Your task to perform on an android device: What's the weather going to be this weekend? Image 0: 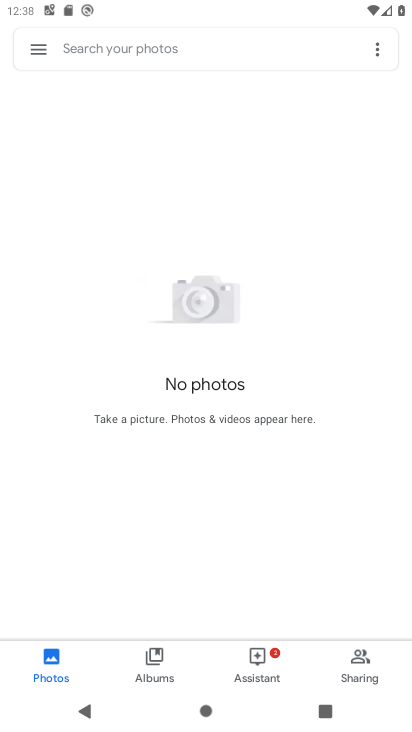
Step 0: press home button
Your task to perform on an android device: What's the weather going to be this weekend? Image 1: 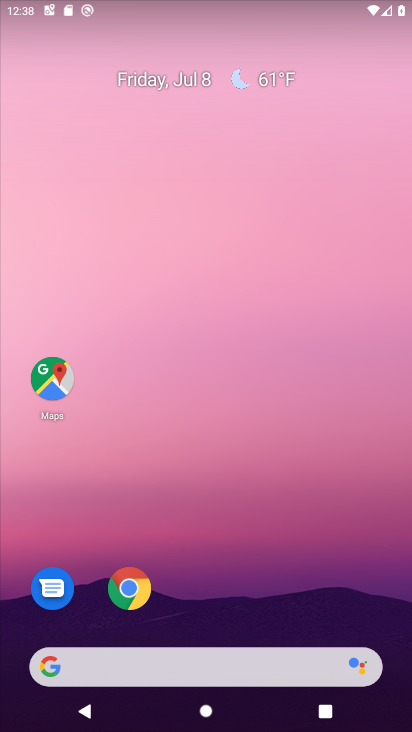
Step 1: click (180, 663)
Your task to perform on an android device: What's the weather going to be this weekend? Image 2: 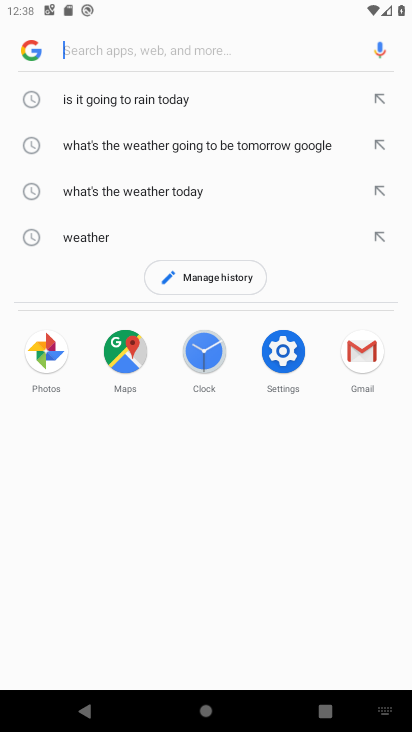
Step 2: type "weather going to be this weekend"
Your task to perform on an android device: What's the weather going to be this weekend? Image 3: 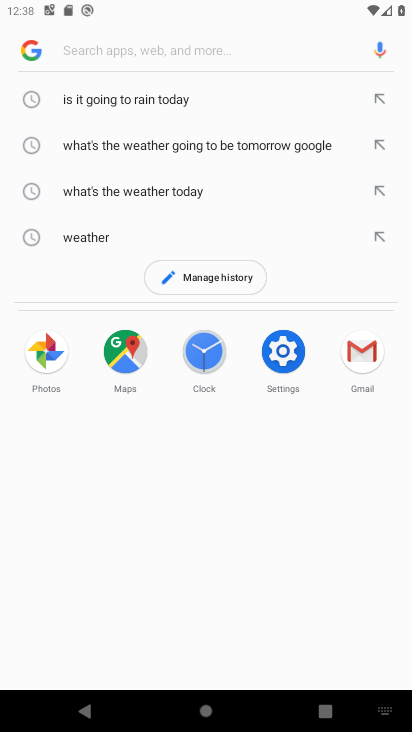
Step 3: click (110, 47)
Your task to perform on an android device: What's the weather going to be this weekend? Image 4: 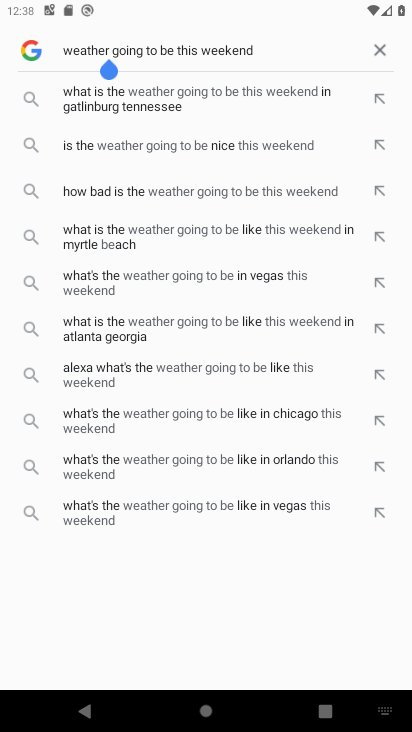
Step 4: press enter
Your task to perform on an android device: What's the weather going to be this weekend? Image 5: 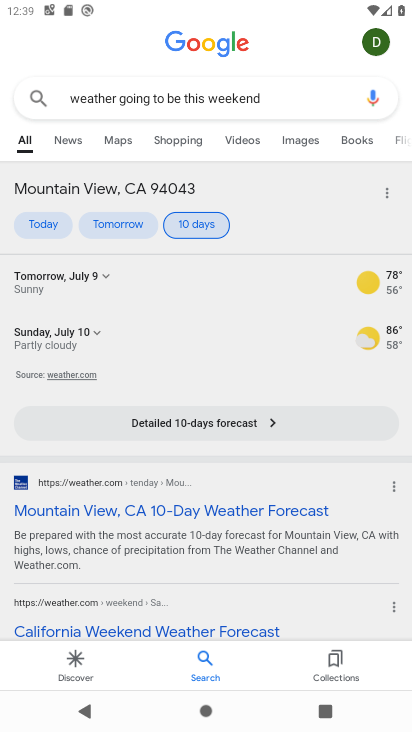
Step 5: task complete